Your task to perform on an android device: delete a single message in the gmail app Image 0: 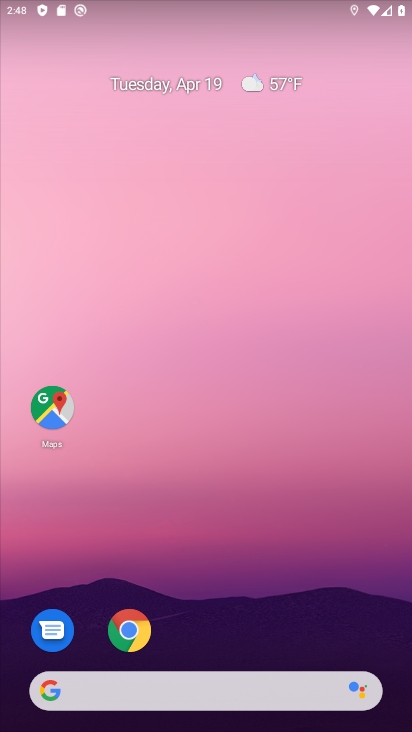
Step 0: drag from (235, 619) to (235, 161)
Your task to perform on an android device: delete a single message in the gmail app Image 1: 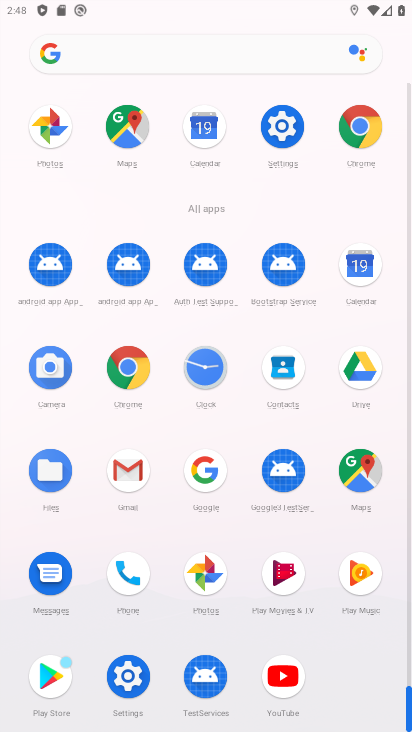
Step 1: click (141, 469)
Your task to perform on an android device: delete a single message in the gmail app Image 2: 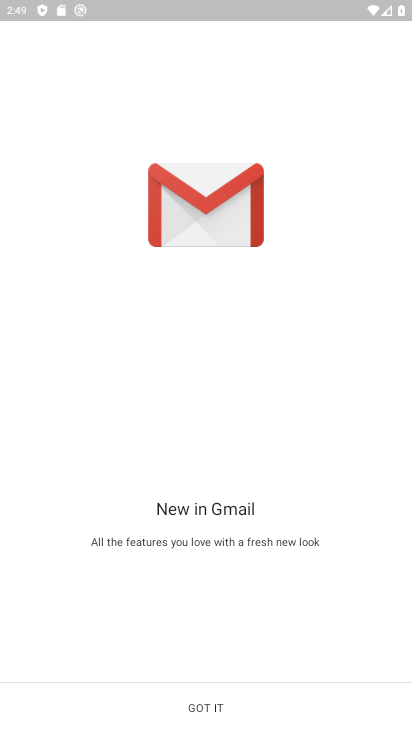
Step 2: click (180, 676)
Your task to perform on an android device: delete a single message in the gmail app Image 3: 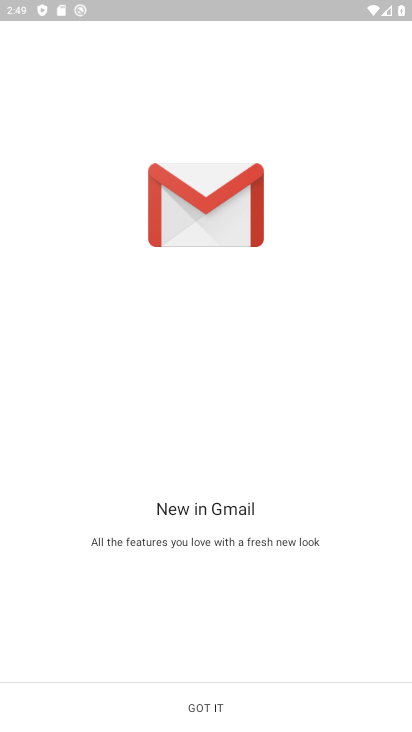
Step 3: click (217, 706)
Your task to perform on an android device: delete a single message in the gmail app Image 4: 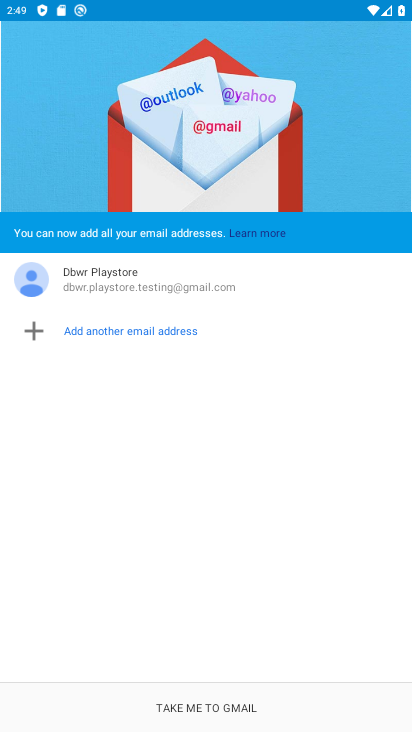
Step 4: click (264, 699)
Your task to perform on an android device: delete a single message in the gmail app Image 5: 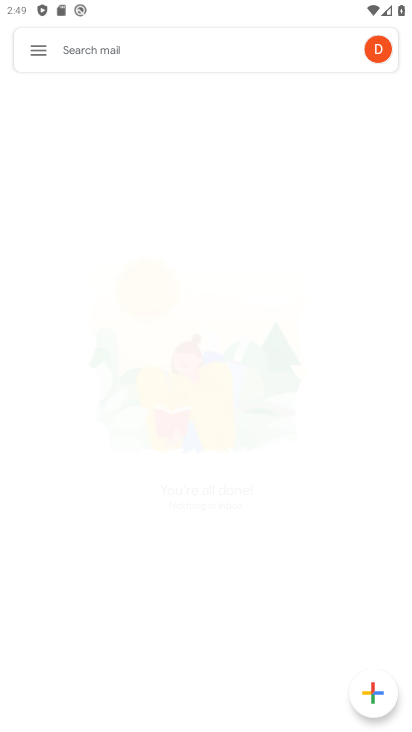
Step 5: click (41, 48)
Your task to perform on an android device: delete a single message in the gmail app Image 6: 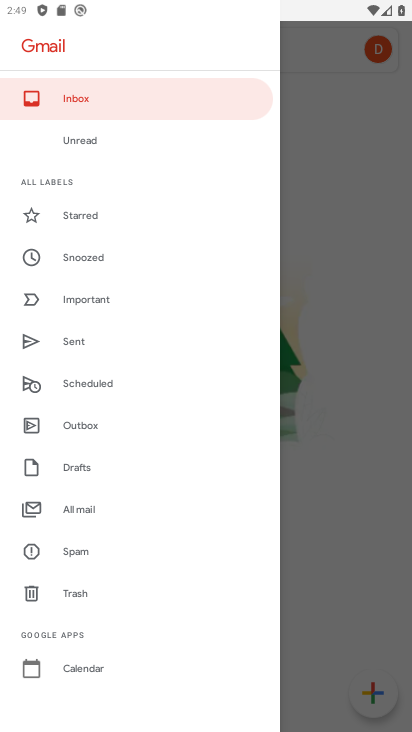
Step 6: drag from (135, 478) to (152, 272)
Your task to perform on an android device: delete a single message in the gmail app Image 7: 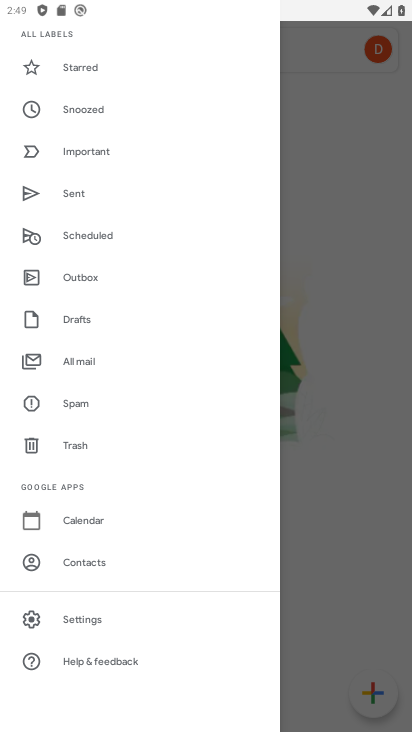
Step 7: drag from (133, 151) to (149, 571)
Your task to perform on an android device: delete a single message in the gmail app Image 8: 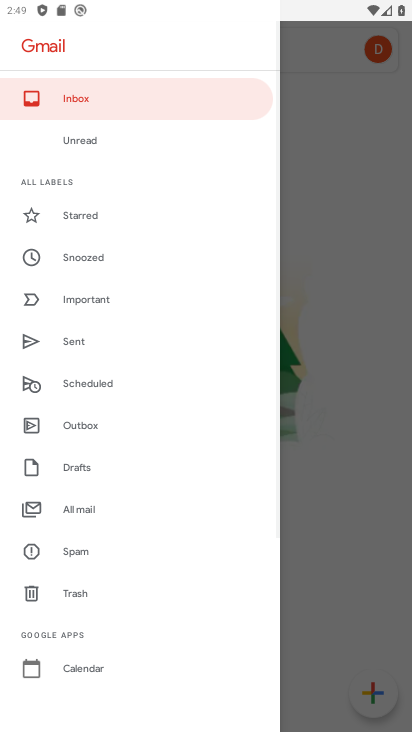
Step 8: click (104, 501)
Your task to perform on an android device: delete a single message in the gmail app Image 9: 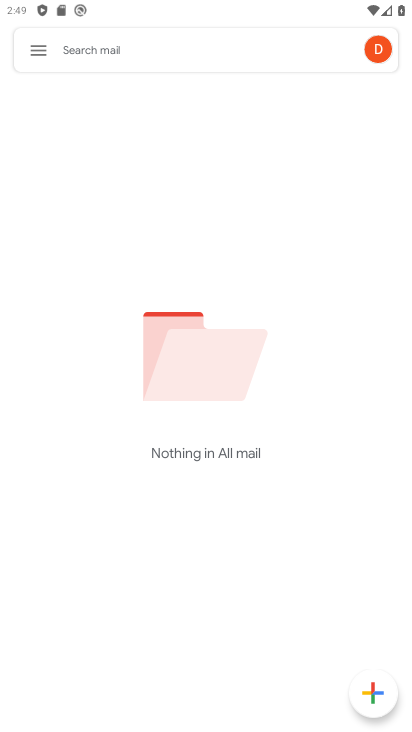
Step 9: task complete